Your task to perform on an android device: move an email to a new category in the gmail app Image 0: 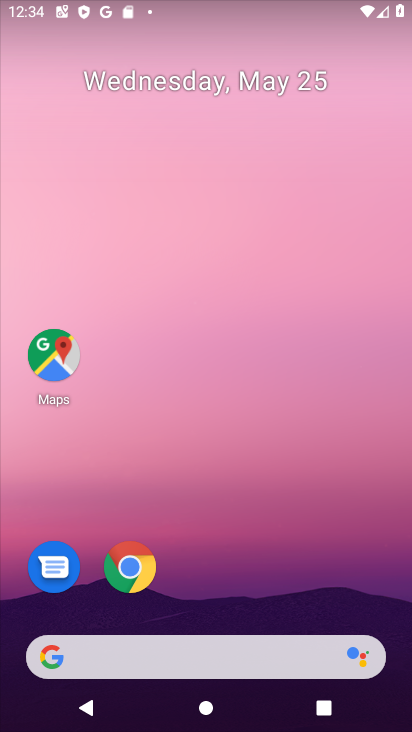
Step 0: drag from (259, 577) to (255, 113)
Your task to perform on an android device: move an email to a new category in the gmail app Image 1: 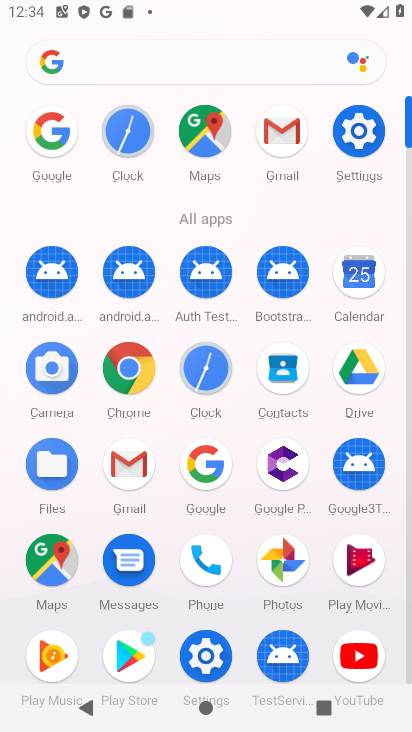
Step 1: click (280, 130)
Your task to perform on an android device: move an email to a new category in the gmail app Image 2: 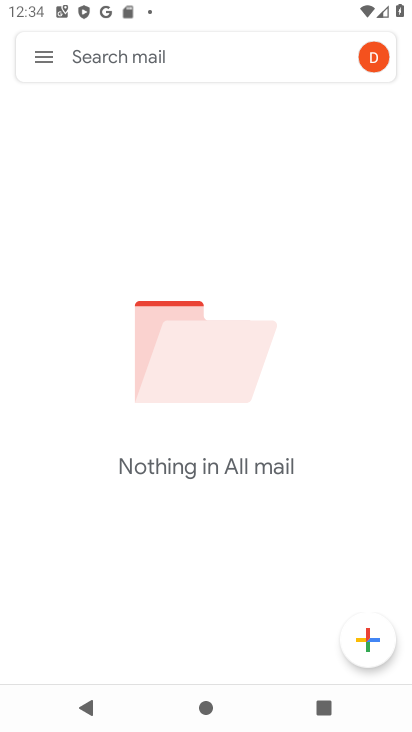
Step 2: click (39, 63)
Your task to perform on an android device: move an email to a new category in the gmail app Image 3: 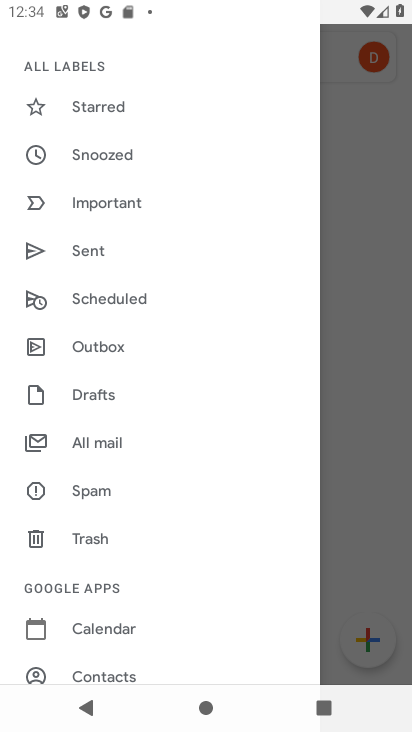
Step 3: click (106, 437)
Your task to perform on an android device: move an email to a new category in the gmail app Image 4: 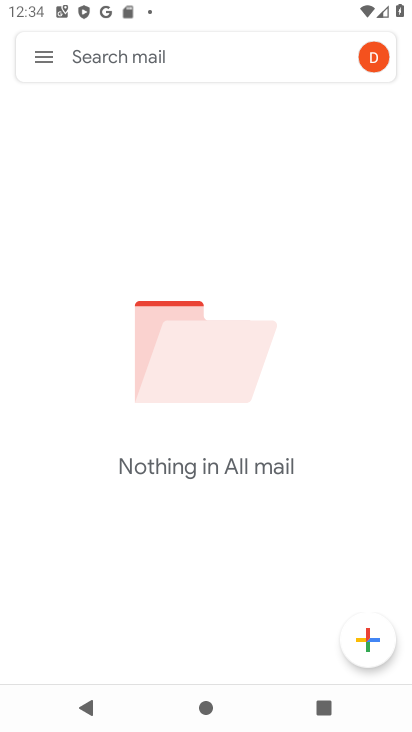
Step 4: click (38, 56)
Your task to perform on an android device: move an email to a new category in the gmail app Image 5: 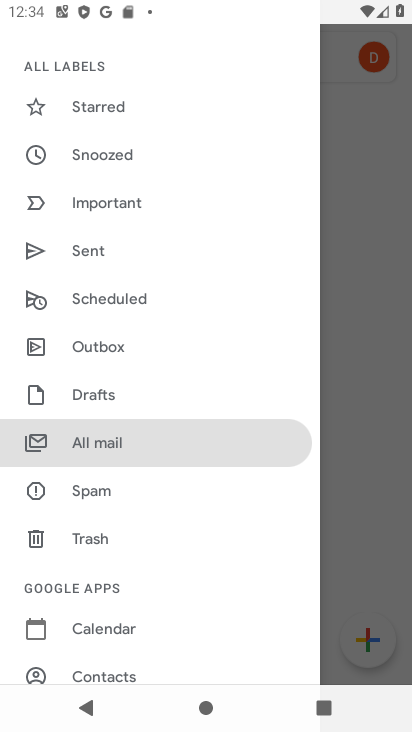
Step 5: drag from (130, 240) to (123, 360)
Your task to perform on an android device: move an email to a new category in the gmail app Image 6: 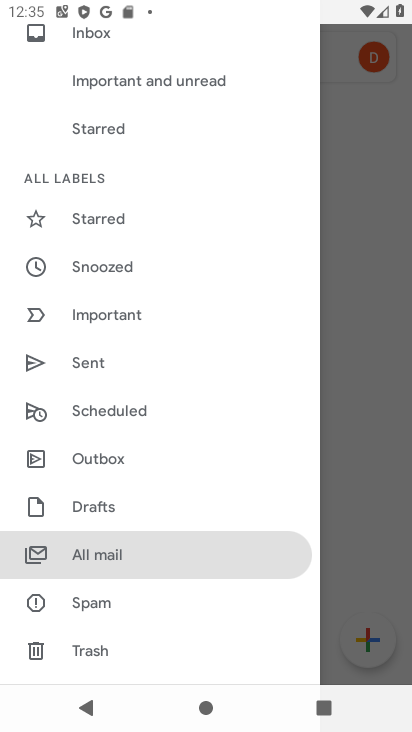
Step 6: drag from (134, 177) to (116, 293)
Your task to perform on an android device: move an email to a new category in the gmail app Image 7: 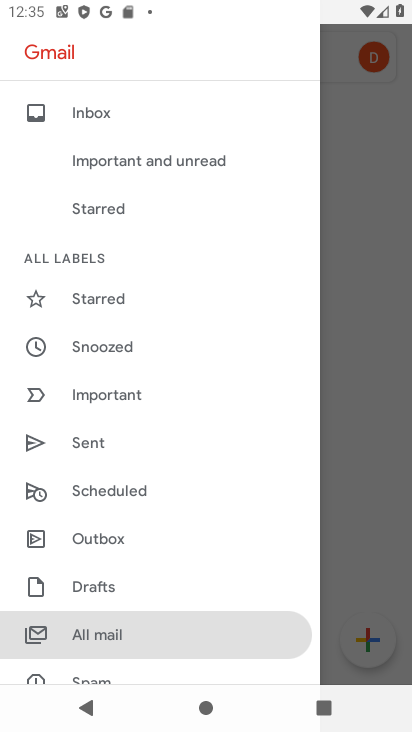
Step 7: click (62, 114)
Your task to perform on an android device: move an email to a new category in the gmail app Image 8: 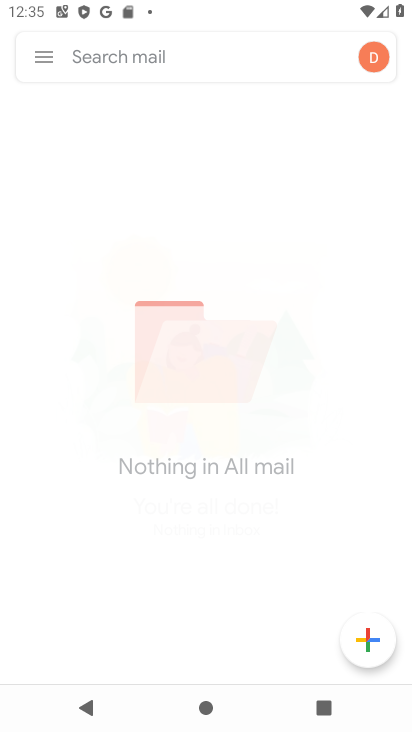
Step 8: click (94, 103)
Your task to perform on an android device: move an email to a new category in the gmail app Image 9: 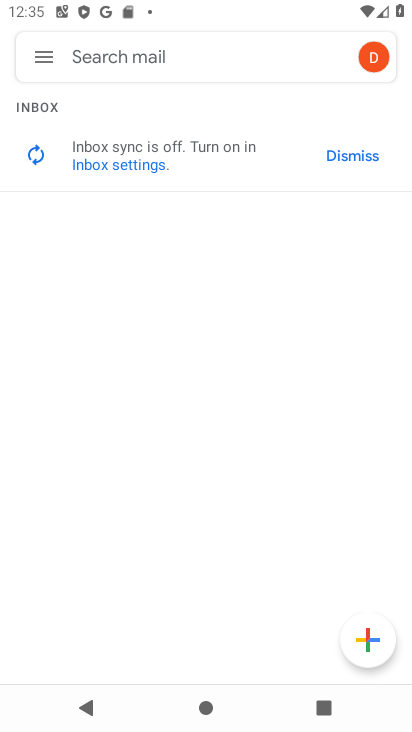
Step 9: task complete